Your task to perform on an android device: Open the web browser Image 0: 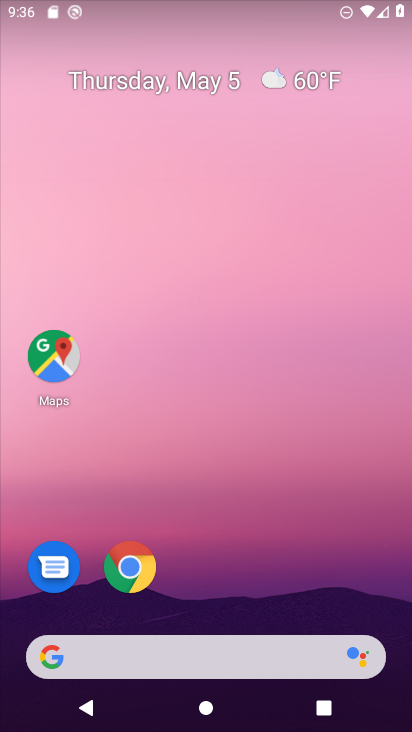
Step 0: click (129, 566)
Your task to perform on an android device: Open the web browser Image 1: 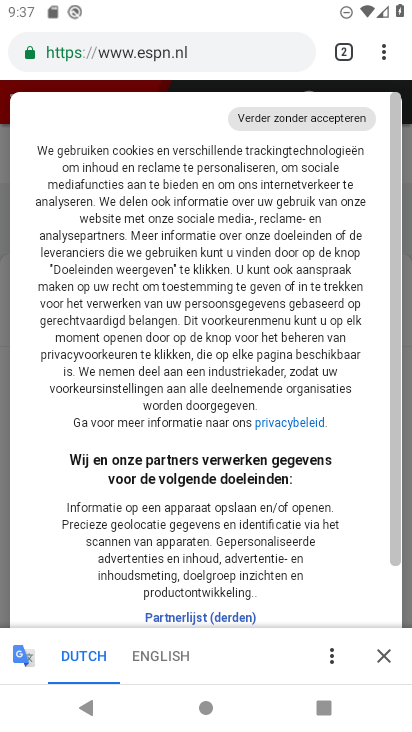
Step 1: task complete